Your task to perform on an android device: Open calendar and show me the first week of next month Image 0: 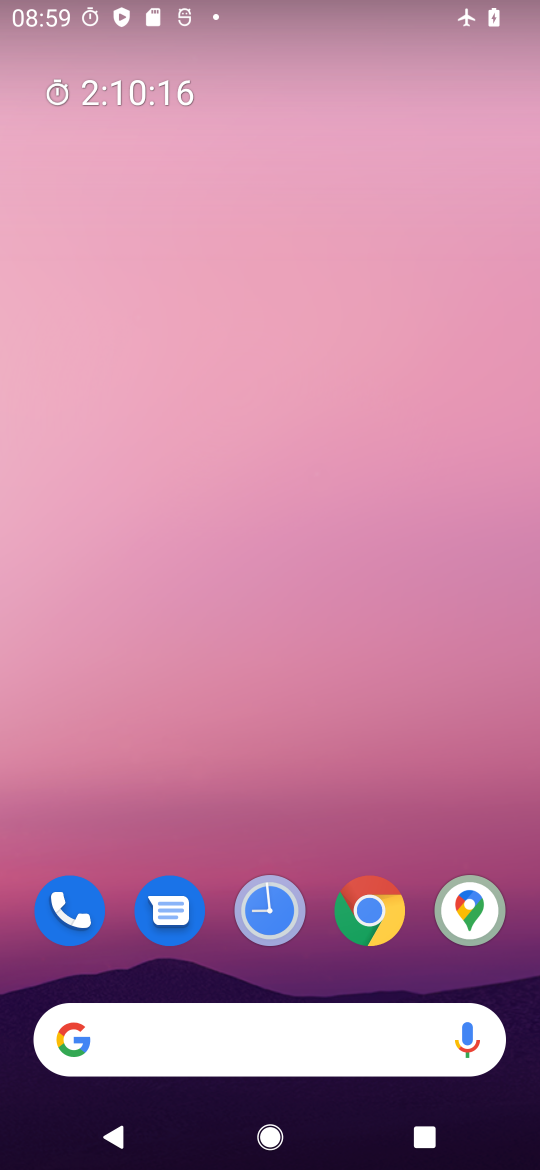
Step 0: drag from (294, 1037) to (308, 9)
Your task to perform on an android device: Open calendar and show me the first week of next month Image 1: 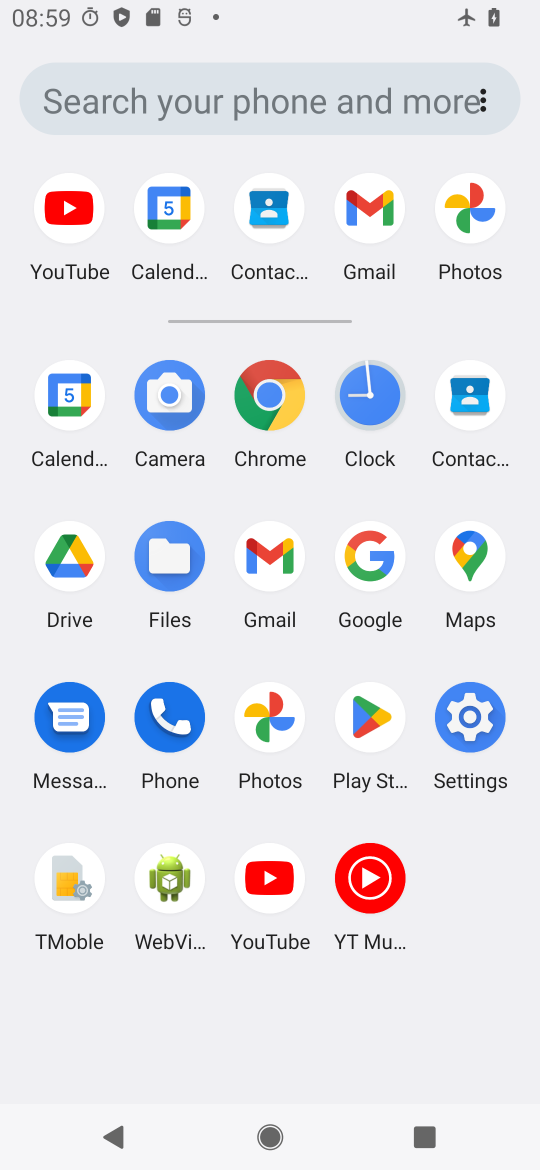
Step 1: click (96, 436)
Your task to perform on an android device: Open calendar and show me the first week of next month Image 2: 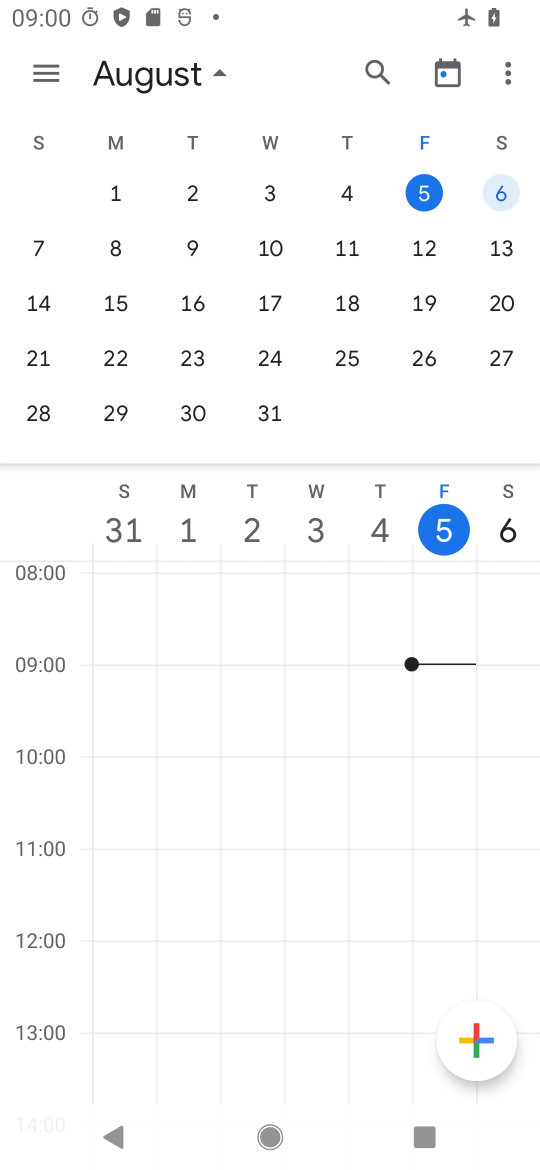
Step 2: drag from (502, 296) to (143, 319)
Your task to perform on an android device: Open calendar and show me the first week of next month Image 3: 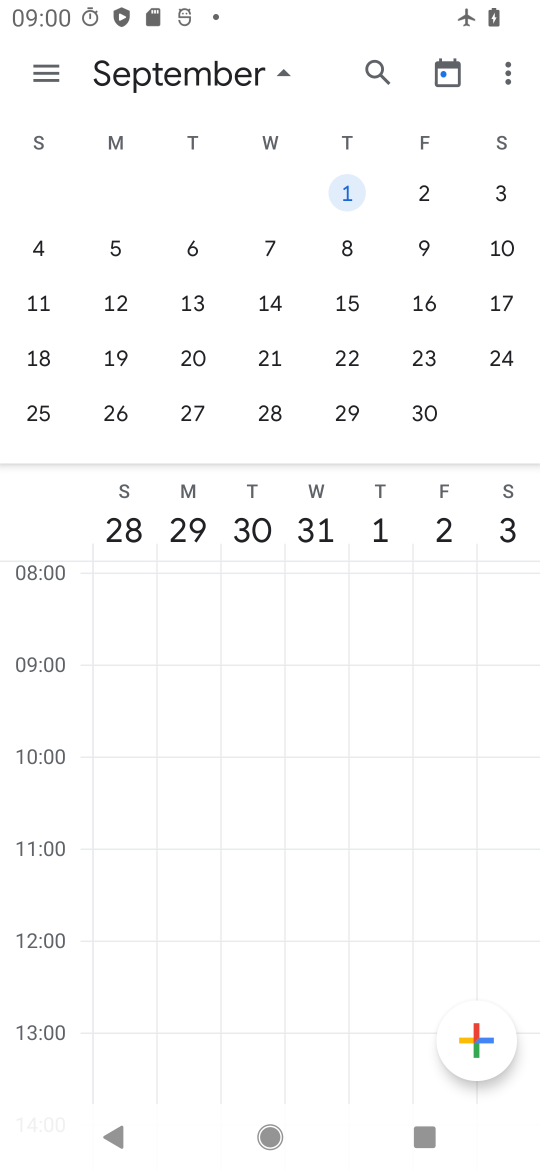
Step 3: click (415, 186)
Your task to perform on an android device: Open calendar and show me the first week of next month Image 4: 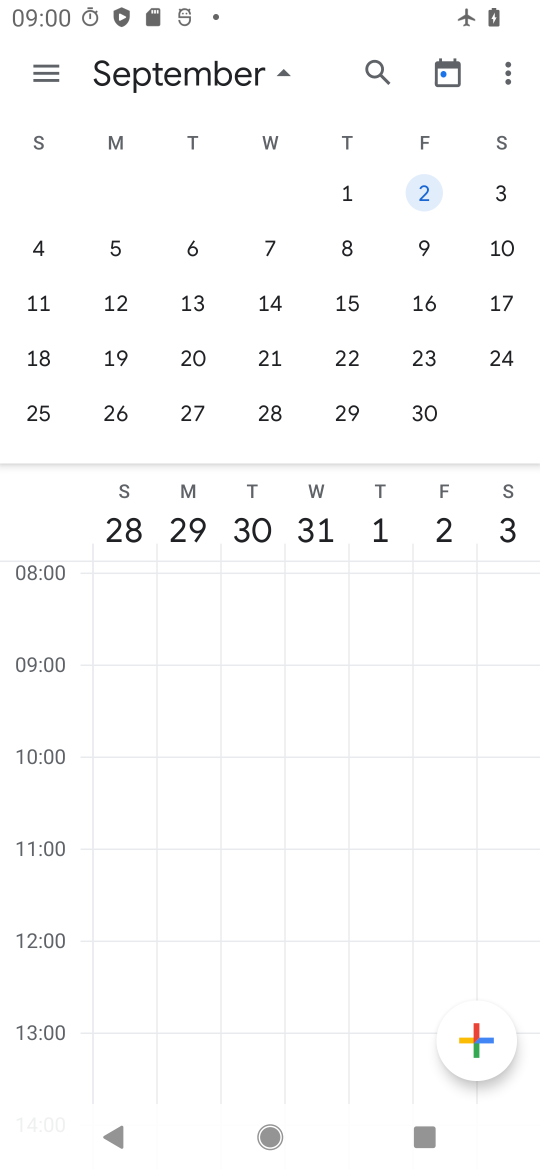
Step 4: task complete